Your task to perform on an android device: turn on the 24-hour format for clock Image 0: 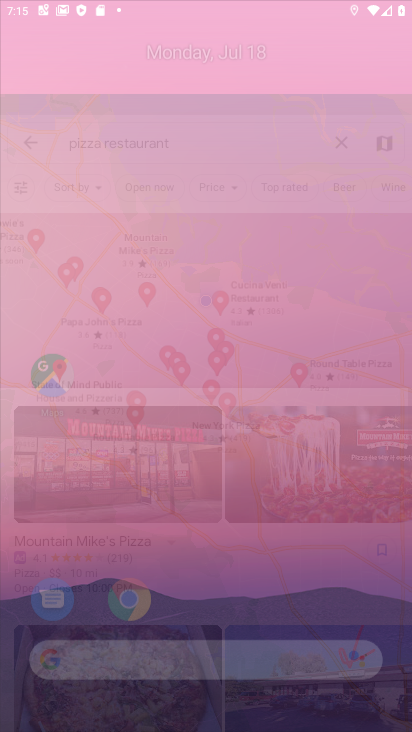
Step 0: drag from (398, 86) to (373, 141)
Your task to perform on an android device: turn on the 24-hour format for clock Image 1: 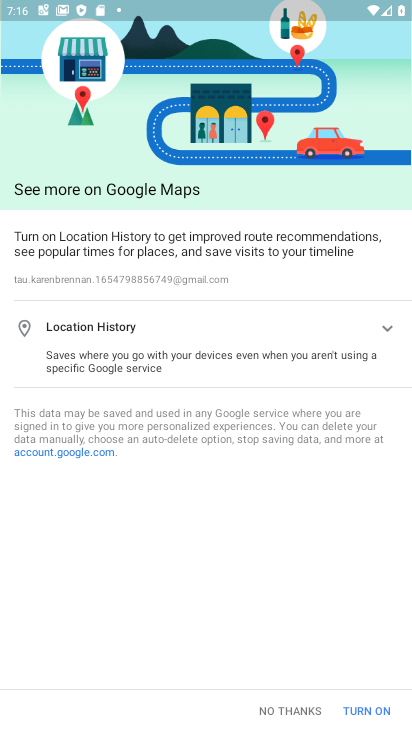
Step 1: press home button
Your task to perform on an android device: turn on the 24-hour format for clock Image 2: 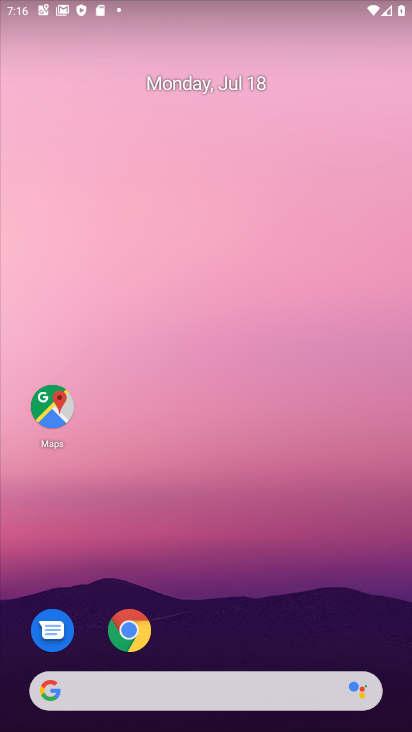
Step 2: drag from (238, 572) to (266, 65)
Your task to perform on an android device: turn on the 24-hour format for clock Image 3: 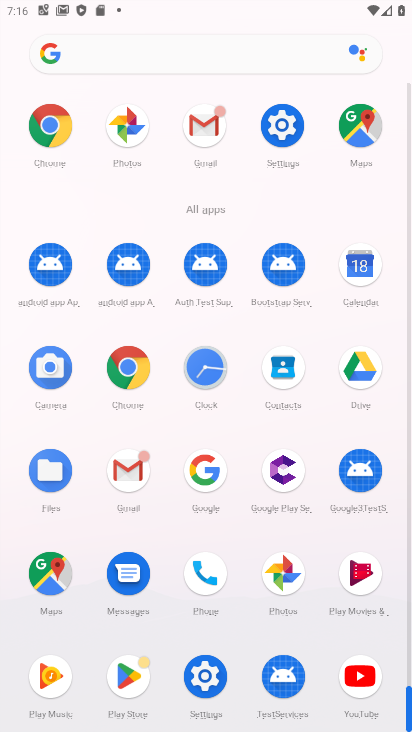
Step 3: click (203, 376)
Your task to perform on an android device: turn on the 24-hour format for clock Image 4: 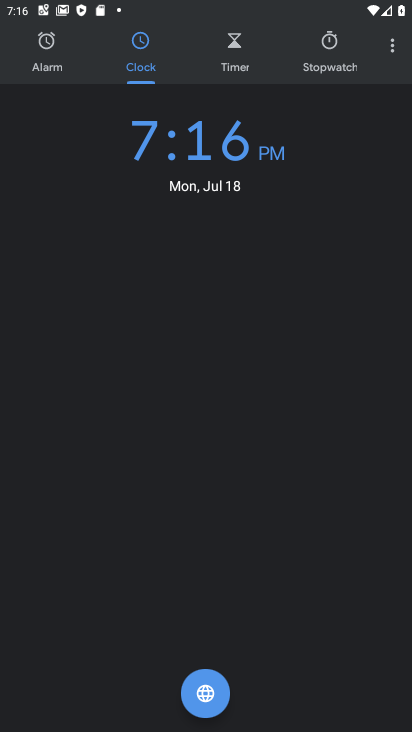
Step 4: click (398, 49)
Your task to perform on an android device: turn on the 24-hour format for clock Image 5: 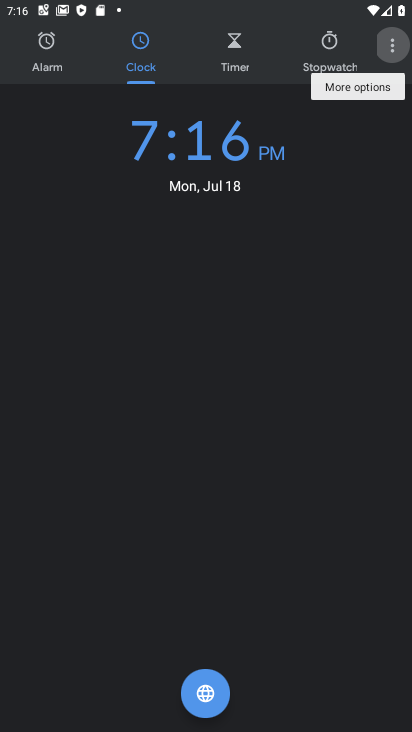
Step 5: click (397, 48)
Your task to perform on an android device: turn on the 24-hour format for clock Image 6: 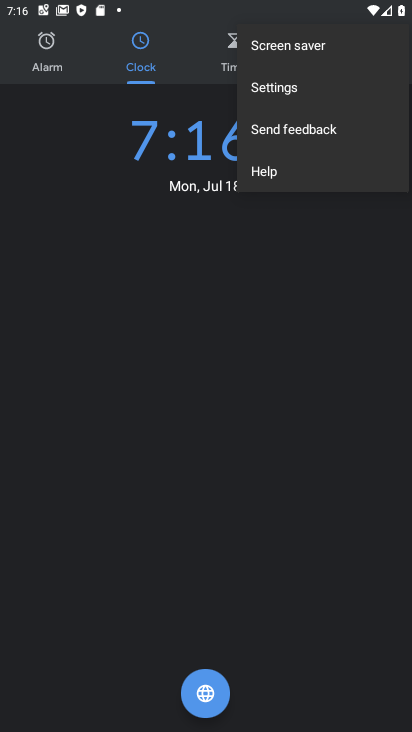
Step 6: click (255, 94)
Your task to perform on an android device: turn on the 24-hour format for clock Image 7: 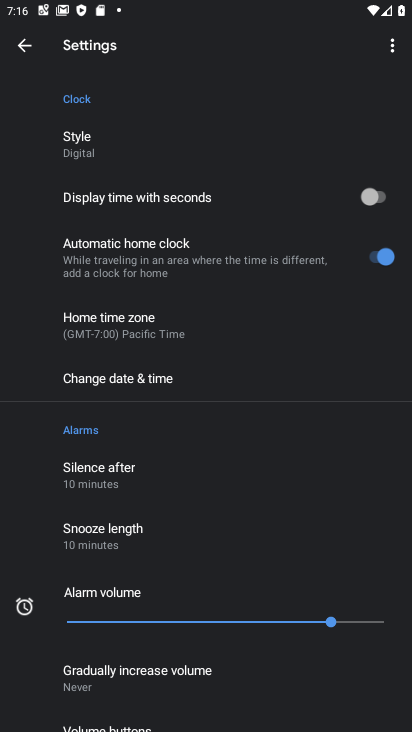
Step 7: click (107, 382)
Your task to perform on an android device: turn on the 24-hour format for clock Image 8: 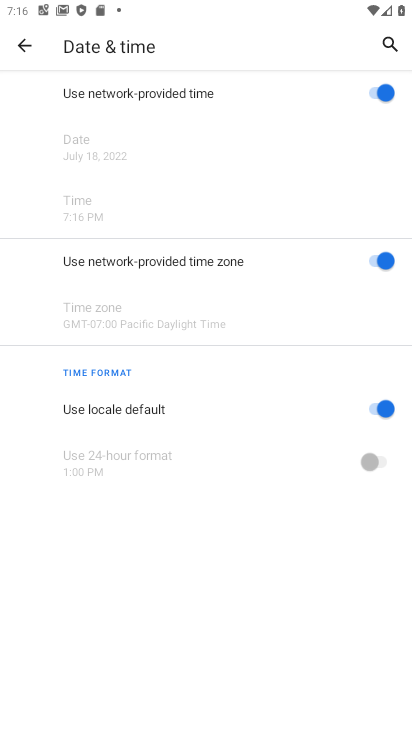
Step 8: click (366, 416)
Your task to perform on an android device: turn on the 24-hour format for clock Image 9: 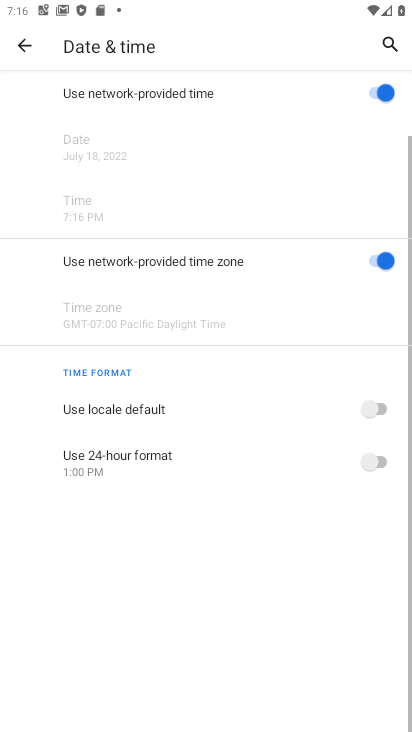
Step 9: click (371, 469)
Your task to perform on an android device: turn on the 24-hour format for clock Image 10: 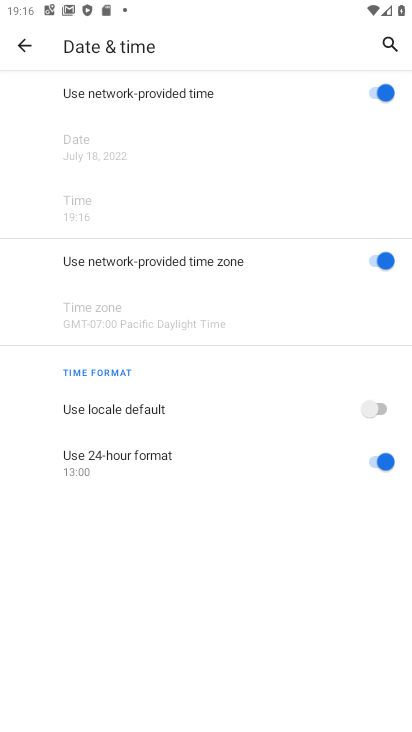
Step 10: task complete